Your task to perform on an android device: toggle priority inbox in the gmail app Image 0: 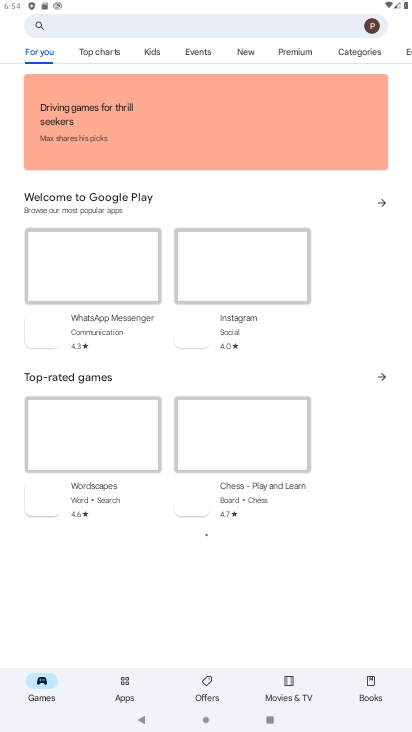
Step 0: press home button
Your task to perform on an android device: toggle priority inbox in the gmail app Image 1: 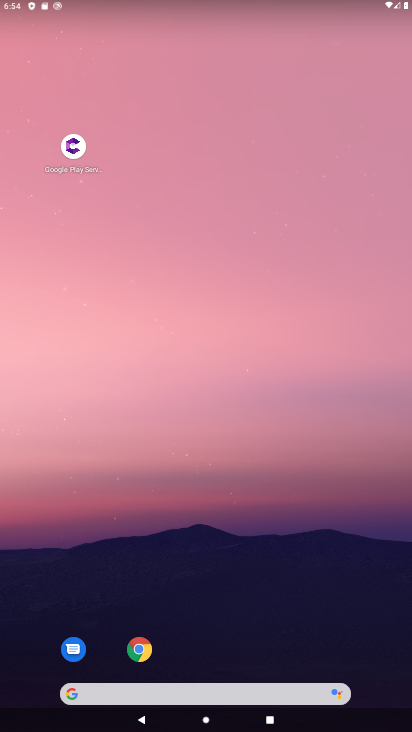
Step 1: drag from (264, 708) to (161, 190)
Your task to perform on an android device: toggle priority inbox in the gmail app Image 2: 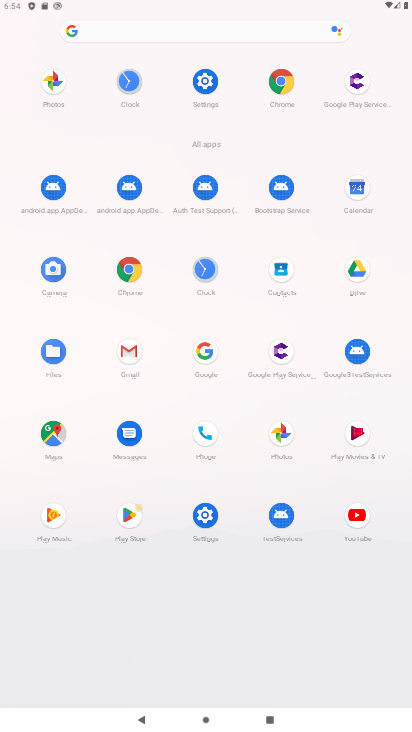
Step 2: drag from (133, 341) to (318, 644)
Your task to perform on an android device: toggle priority inbox in the gmail app Image 3: 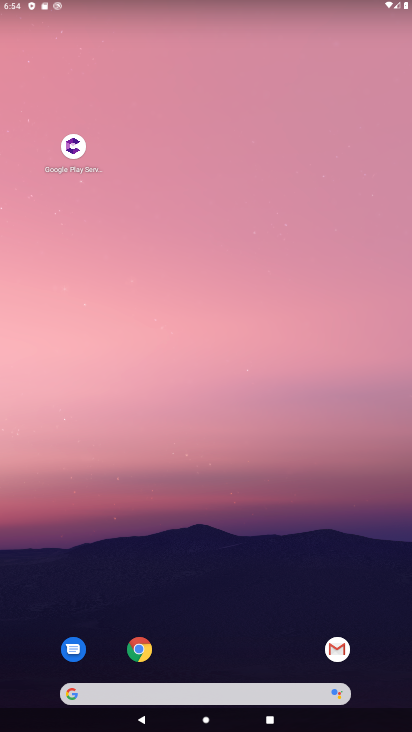
Step 3: click (350, 652)
Your task to perform on an android device: toggle priority inbox in the gmail app Image 4: 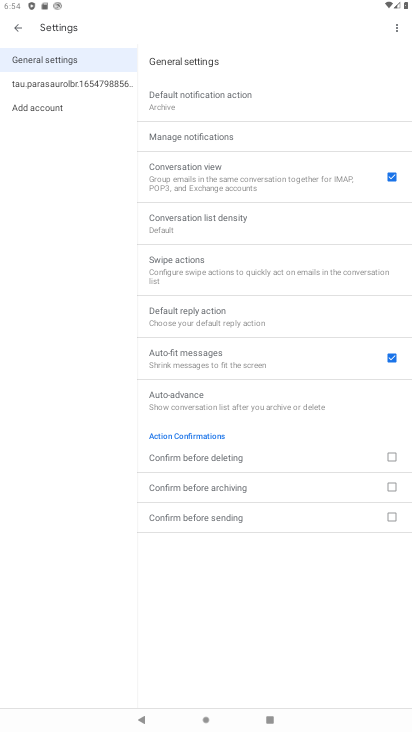
Step 4: click (75, 98)
Your task to perform on an android device: toggle priority inbox in the gmail app Image 5: 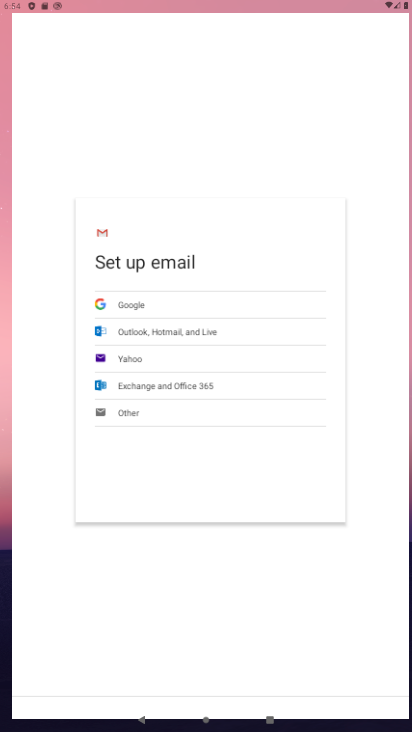
Step 5: click (75, 87)
Your task to perform on an android device: toggle priority inbox in the gmail app Image 6: 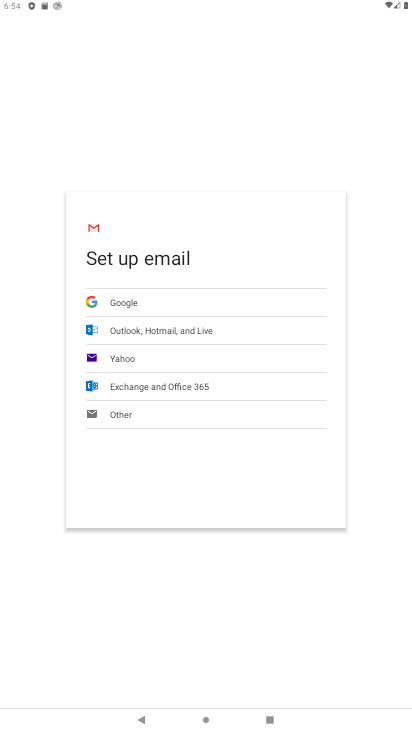
Step 6: press back button
Your task to perform on an android device: toggle priority inbox in the gmail app Image 7: 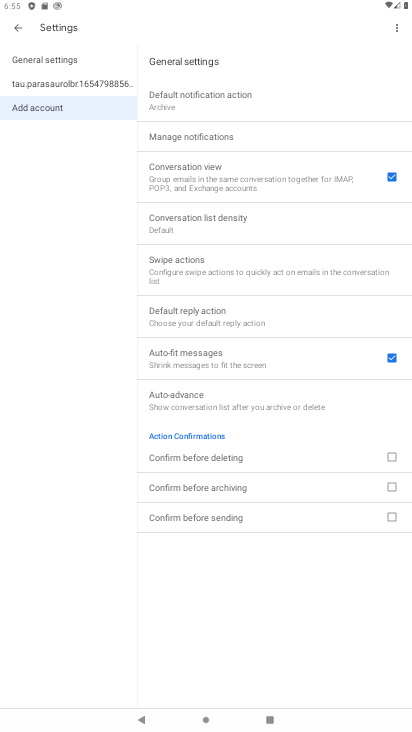
Step 7: click (67, 86)
Your task to perform on an android device: toggle priority inbox in the gmail app Image 8: 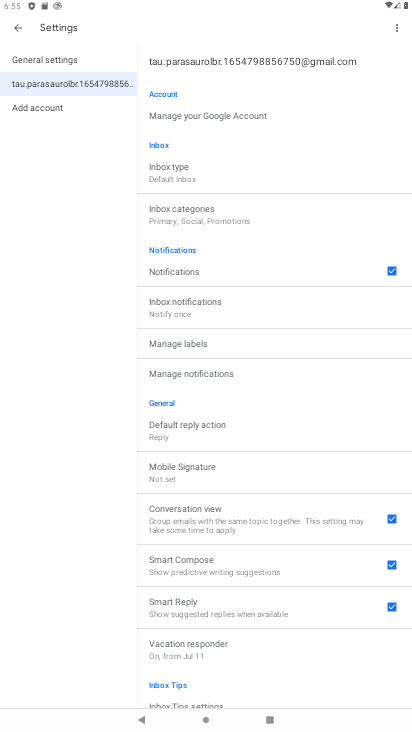
Step 8: click (184, 167)
Your task to perform on an android device: toggle priority inbox in the gmail app Image 9: 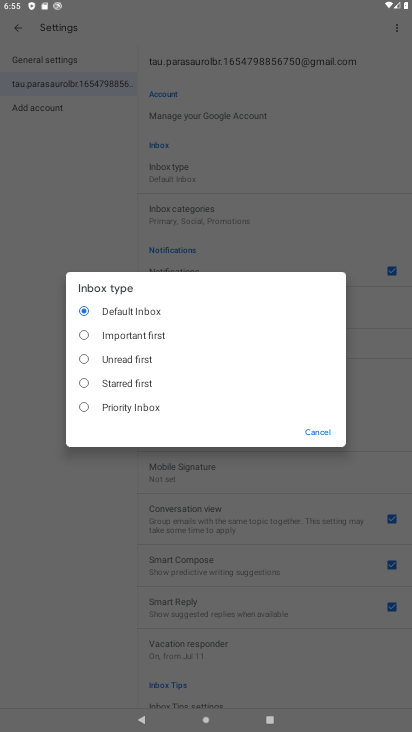
Step 9: click (130, 412)
Your task to perform on an android device: toggle priority inbox in the gmail app Image 10: 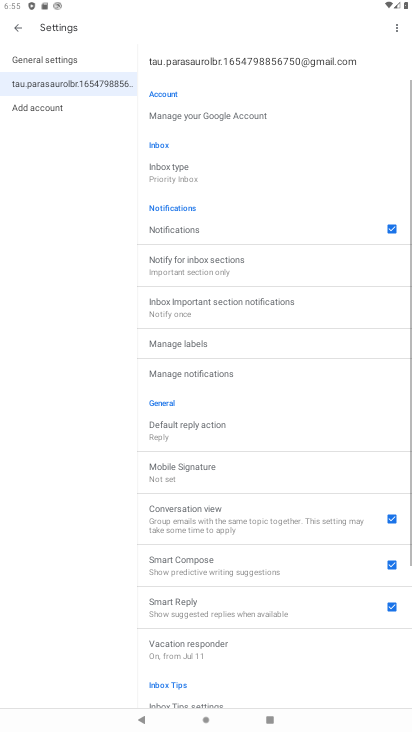
Step 10: task complete